Your task to perform on an android device: turn on notifications settings in the gmail app Image 0: 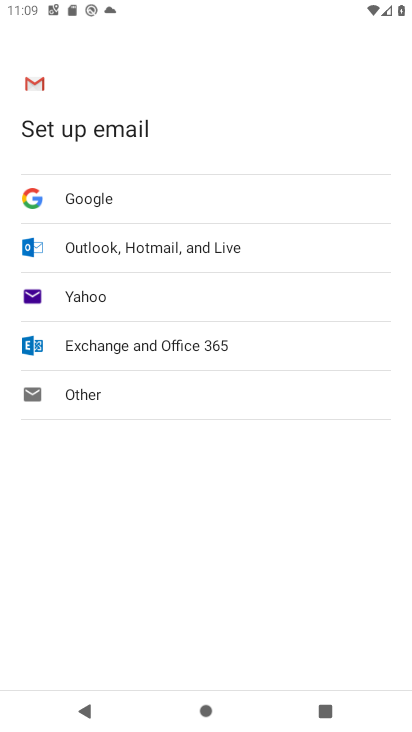
Step 0: press home button
Your task to perform on an android device: turn on notifications settings in the gmail app Image 1: 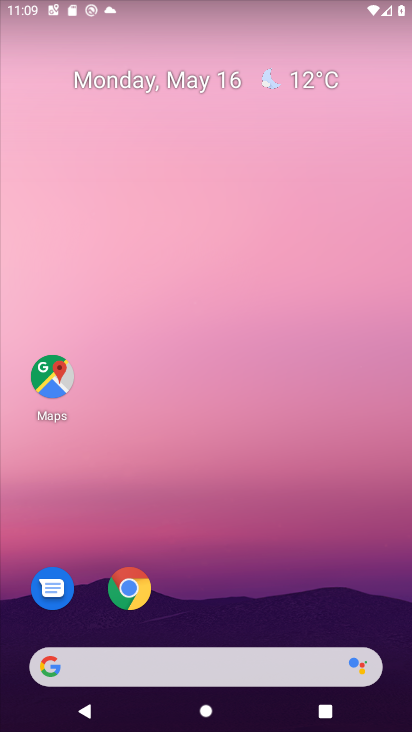
Step 1: drag from (208, 601) to (243, 30)
Your task to perform on an android device: turn on notifications settings in the gmail app Image 2: 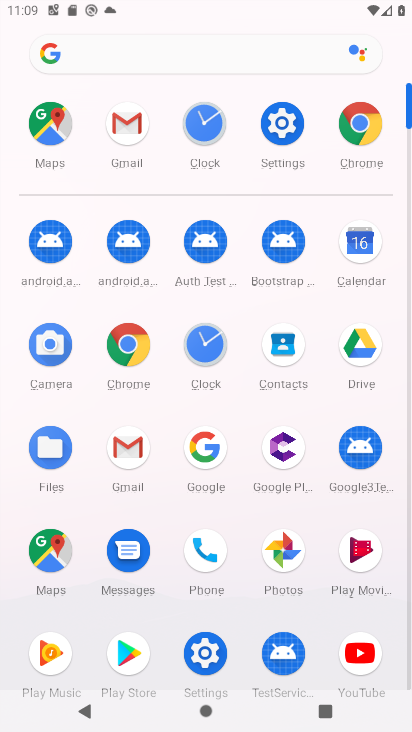
Step 2: click (128, 440)
Your task to perform on an android device: turn on notifications settings in the gmail app Image 3: 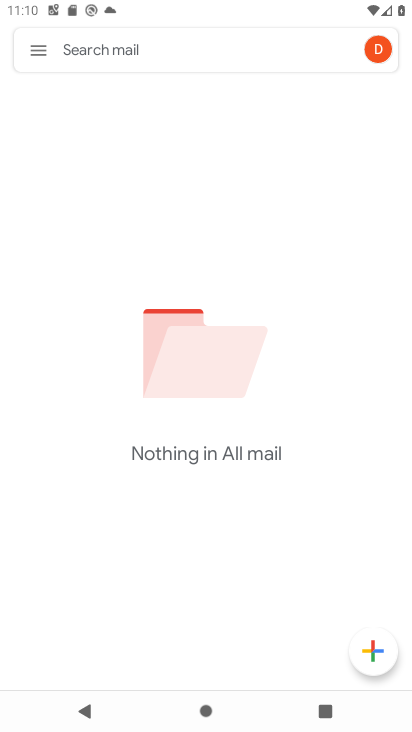
Step 3: click (34, 38)
Your task to perform on an android device: turn on notifications settings in the gmail app Image 4: 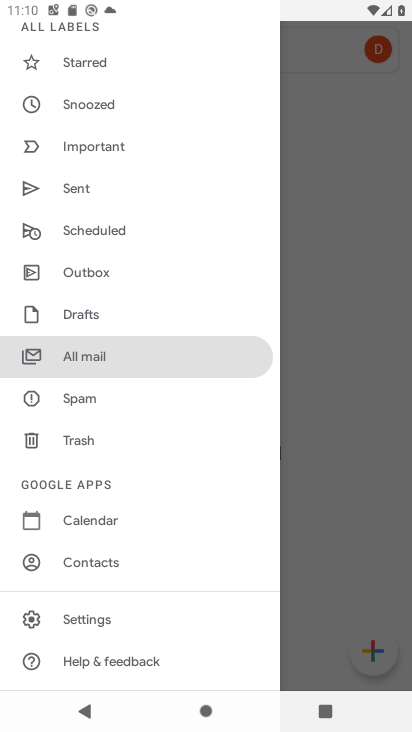
Step 4: click (123, 612)
Your task to perform on an android device: turn on notifications settings in the gmail app Image 5: 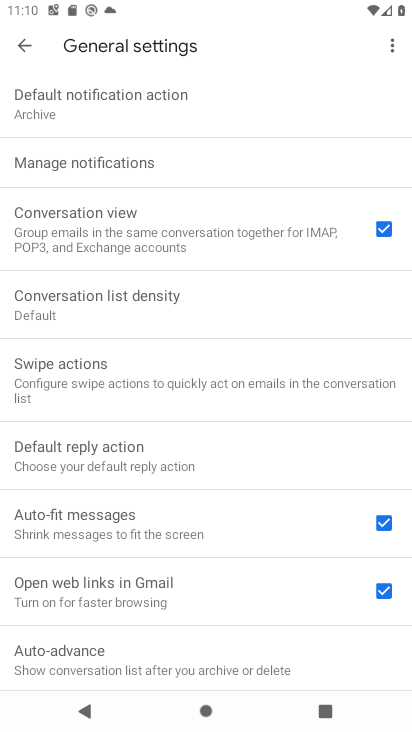
Step 5: click (156, 161)
Your task to perform on an android device: turn on notifications settings in the gmail app Image 6: 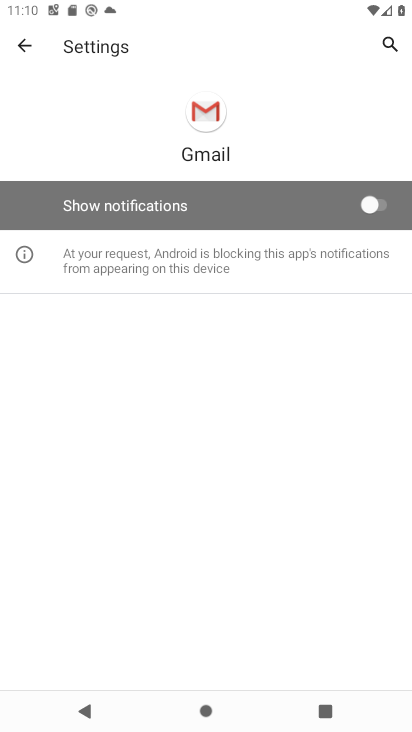
Step 6: click (380, 200)
Your task to perform on an android device: turn on notifications settings in the gmail app Image 7: 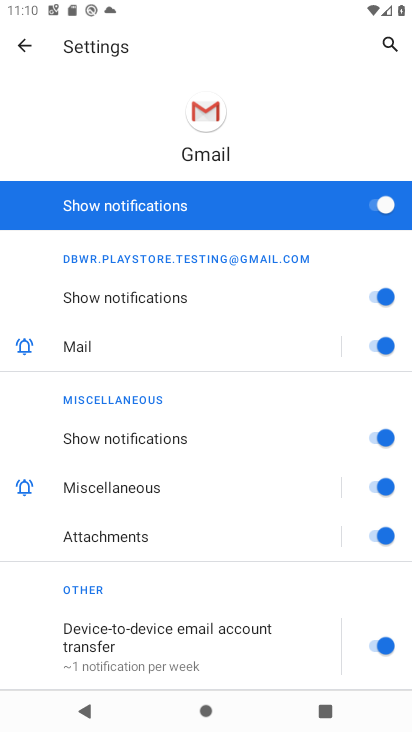
Step 7: task complete